Your task to perform on an android device: Turn off the flashlight Image 0: 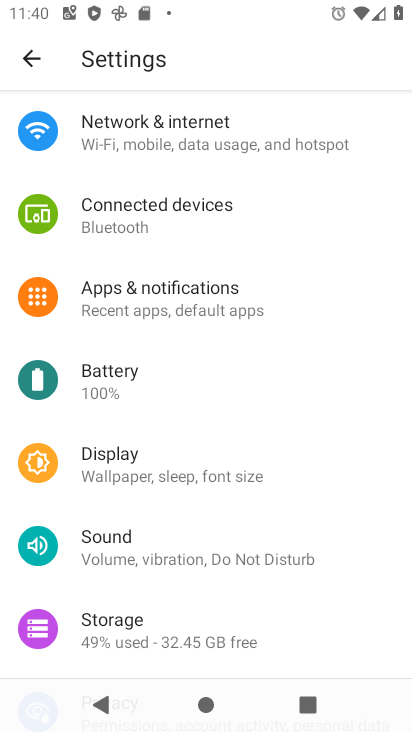
Step 0: drag from (233, 262) to (300, 634)
Your task to perform on an android device: Turn off the flashlight Image 1: 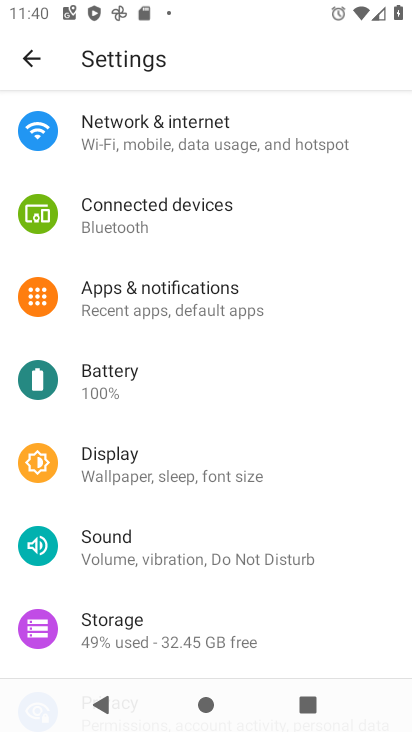
Step 1: press home button
Your task to perform on an android device: Turn off the flashlight Image 2: 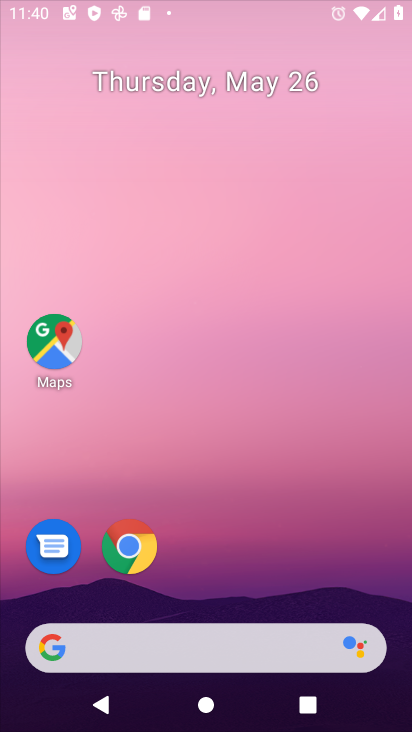
Step 2: drag from (264, 557) to (277, 36)
Your task to perform on an android device: Turn off the flashlight Image 3: 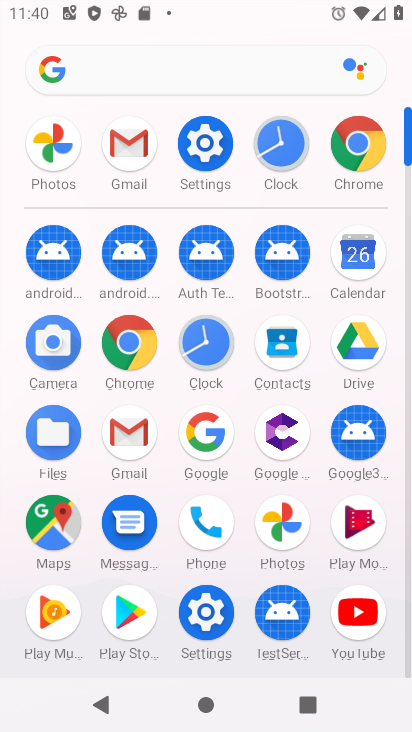
Step 3: click (204, 139)
Your task to perform on an android device: Turn off the flashlight Image 4: 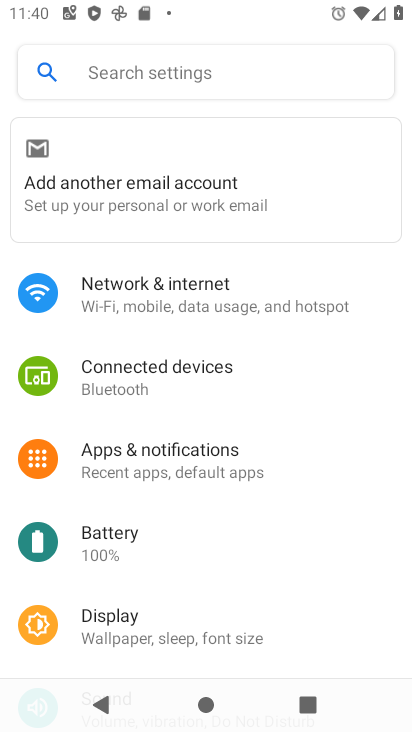
Step 4: click (179, 77)
Your task to perform on an android device: Turn off the flashlight Image 5: 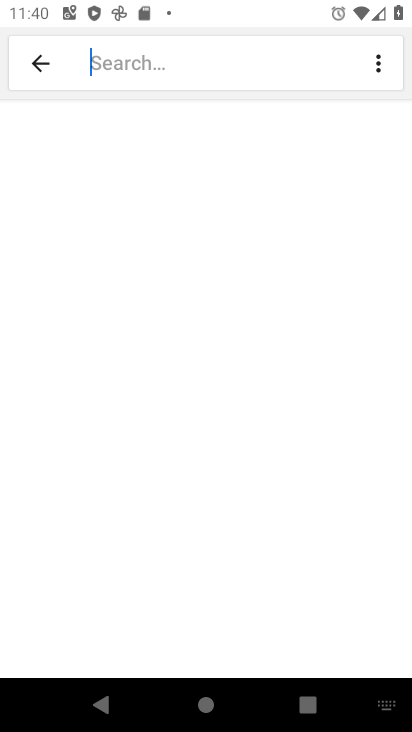
Step 5: type "flash"
Your task to perform on an android device: Turn off the flashlight Image 6: 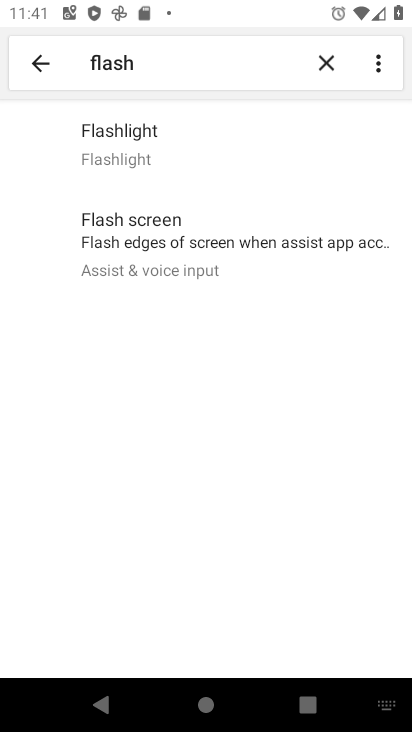
Step 6: task complete